Your task to perform on an android device: Search for "panasonic triple a" on amazon, select the first entry, and add it to the cart. Image 0: 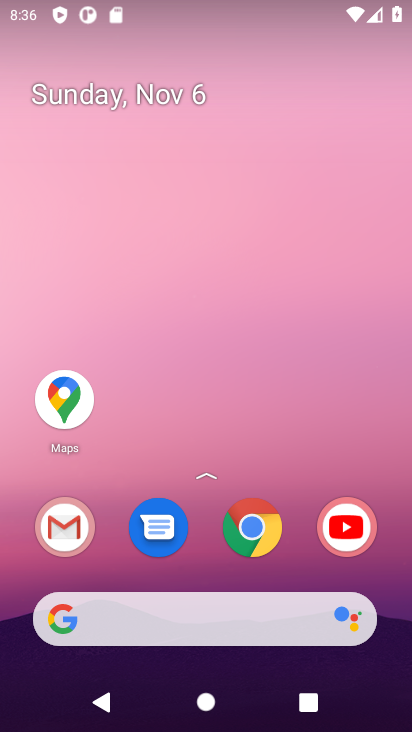
Step 0: click (249, 529)
Your task to perform on an android device: Search for "panasonic triple a" on amazon, select the first entry, and add it to the cart. Image 1: 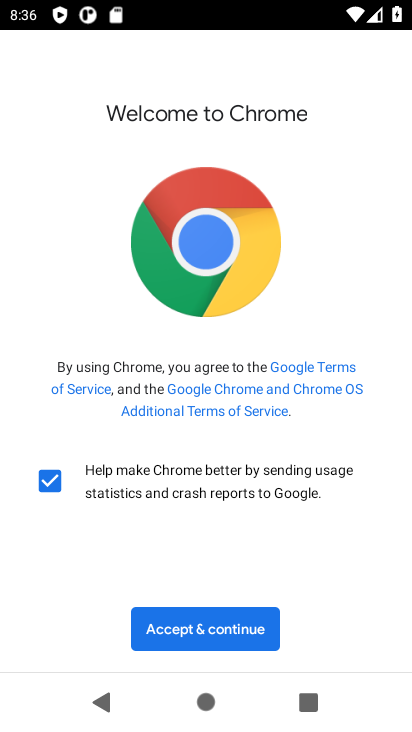
Step 1: click (176, 630)
Your task to perform on an android device: Search for "panasonic triple a" on amazon, select the first entry, and add it to the cart. Image 2: 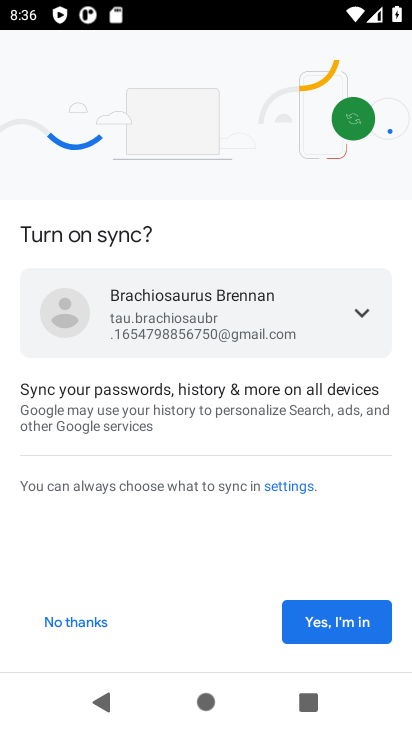
Step 2: click (355, 615)
Your task to perform on an android device: Search for "panasonic triple a" on amazon, select the first entry, and add it to the cart. Image 3: 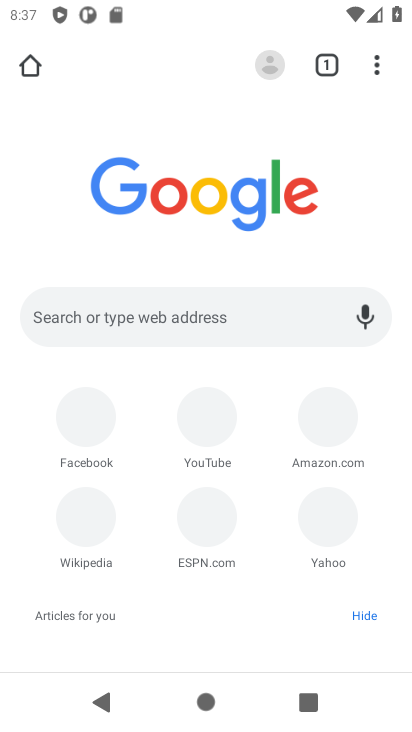
Step 3: click (140, 309)
Your task to perform on an android device: Search for "panasonic triple a" on amazon, select the first entry, and add it to the cart. Image 4: 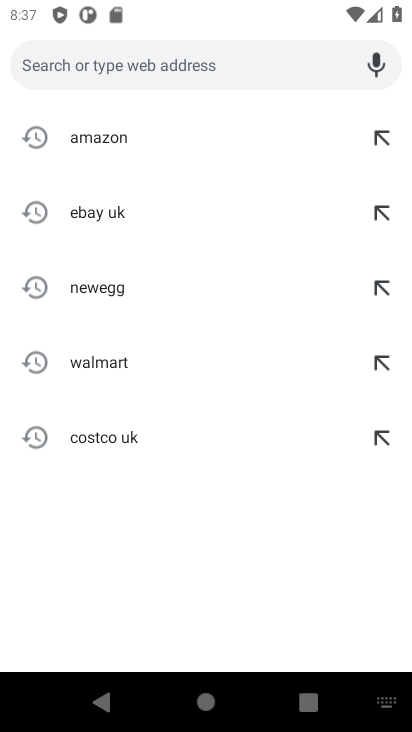
Step 4: click (109, 132)
Your task to perform on an android device: Search for "panasonic triple a" on amazon, select the first entry, and add it to the cart. Image 5: 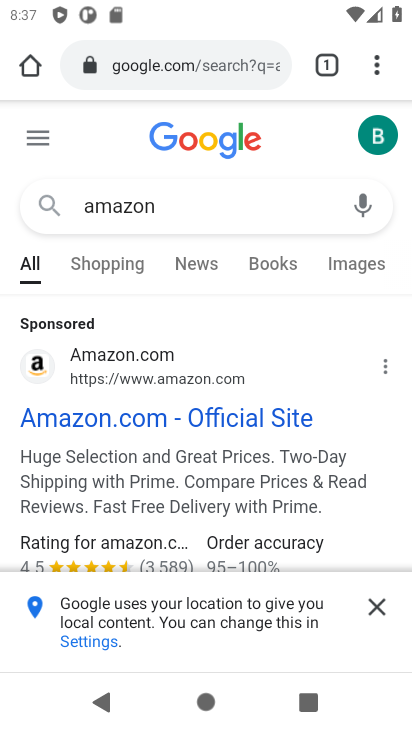
Step 5: click (377, 605)
Your task to perform on an android device: Search for "panasonic triple a" on amazon, select the first entry, and add it to the cart. Image 6: 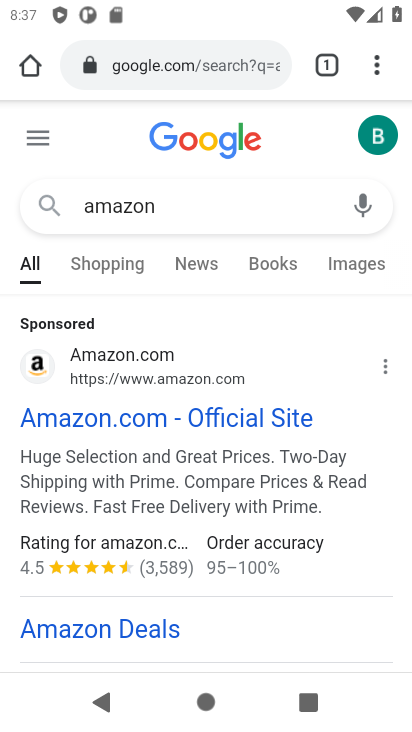
Step 6: click (125, 417)
Your task to perform on an android device: Search for "panasonic triple a" on amazon, select the first entry, and add it to the cart. Image 7: 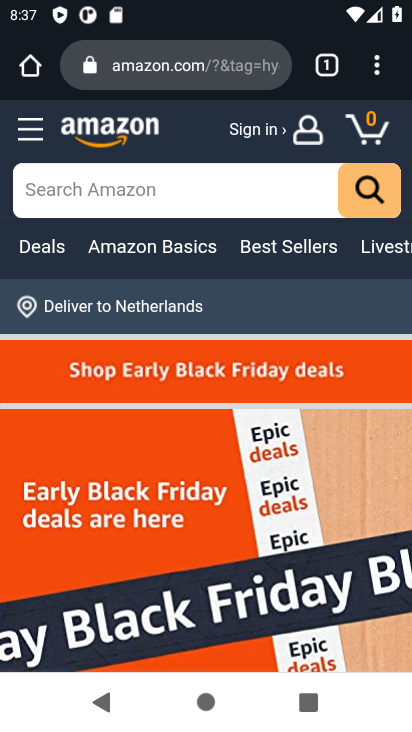
Step 7: click (152, 195)
Your task to perform on an android device: Search for "panasonic triple a" on amazon, select the first entry, and add it to the cart. Image 8: 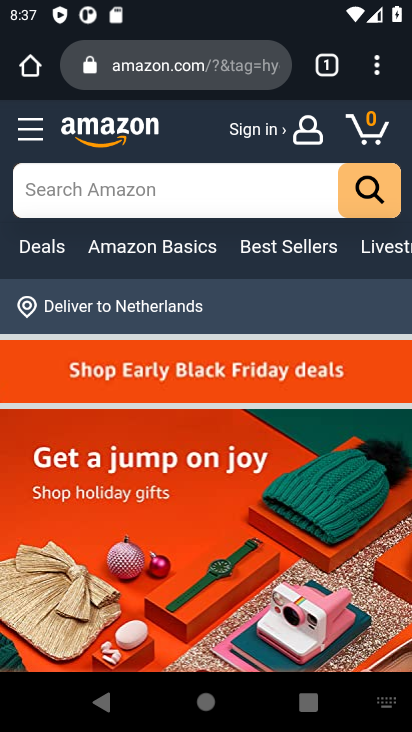
Step 8: click (173, 195)
Your task to perform on an android device: Search for "panasonic triple a" on amazon, select the first entry, and add it to the cart. Image 9: 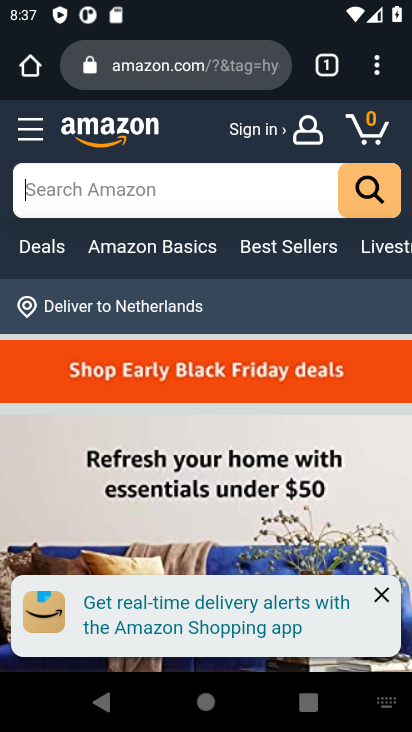
Step 9: type "panasonic triple "
Your task to perform on an android device: Search for "panasonic triple a" on amazon, select the first entry, and add it to the cart. Image 10: 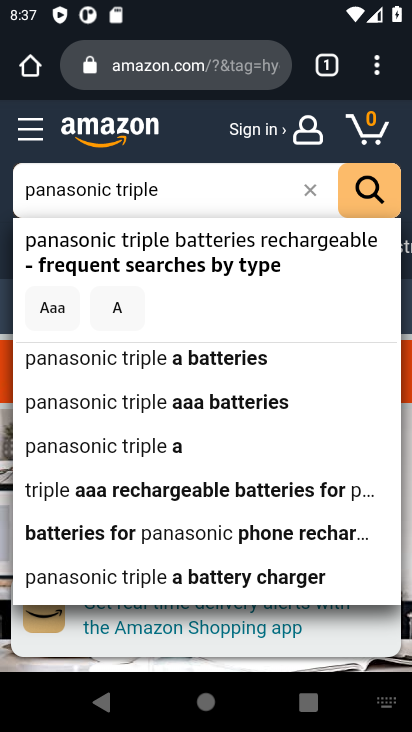
Step 10: click (227, 360)
Your task to perform on an android device: Search for "panasonic triple a" on amazon, select the first entry, and add it to the cart. Image 11: 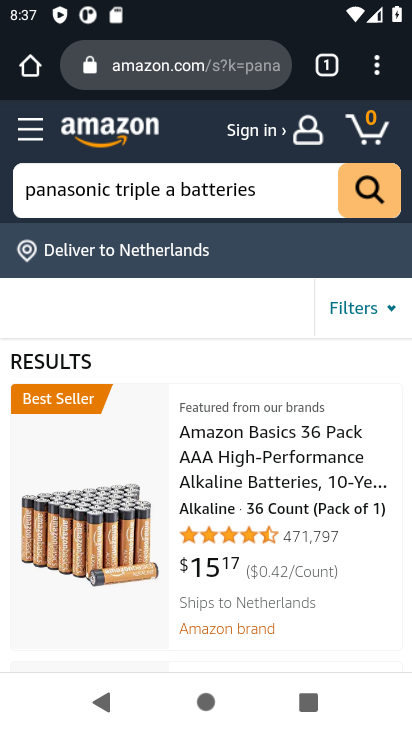
Step 11: click (272, 448)
Your task to perform on an android device: Search for "panasonic triple a" on amazon, select the first entry, and add it to the cart. Image 12: 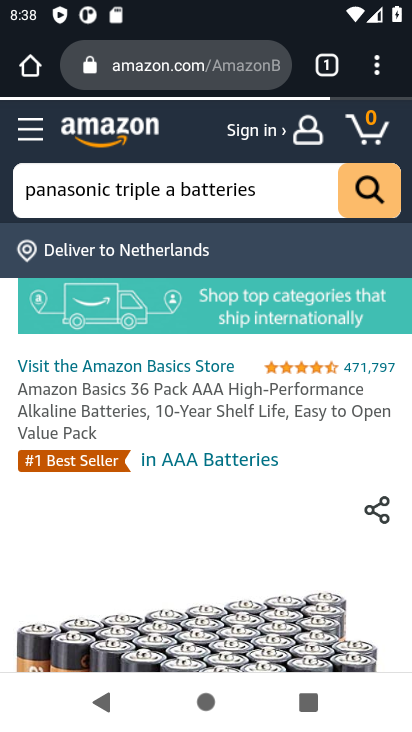
Step 12: drag from (213, 592) to (266, 219)
Your task to perform on an android device: Search for "panasonic triple a" on amazon, select the first entry, and add it to the cart. Image 13: 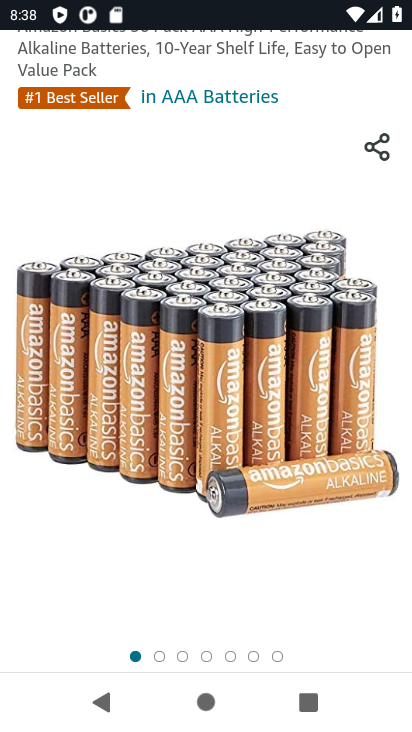
Step 13: drag from (197, 588) to (250, 195)
Your task to perform on an android device: Search for "panasonic triple a" on amazon, select the first entry, and add it to the cart. Image 14: 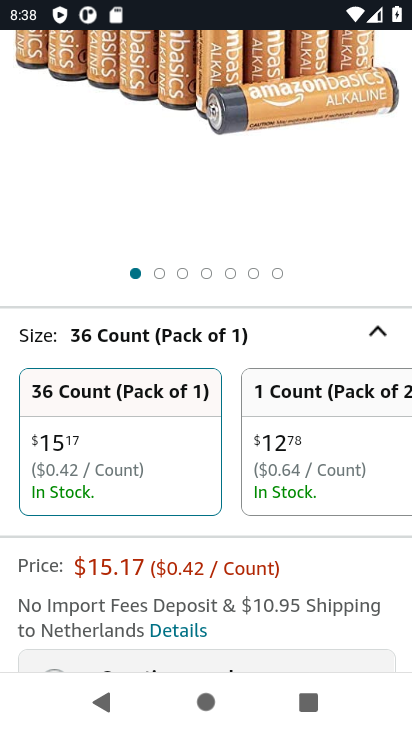
Step 14: drag from (177, 598) to (275, 81)
Your task to perform on an android device: Search for "panasonic triple a" on amazon, select the first entry, and add it to the cart. Image 15: 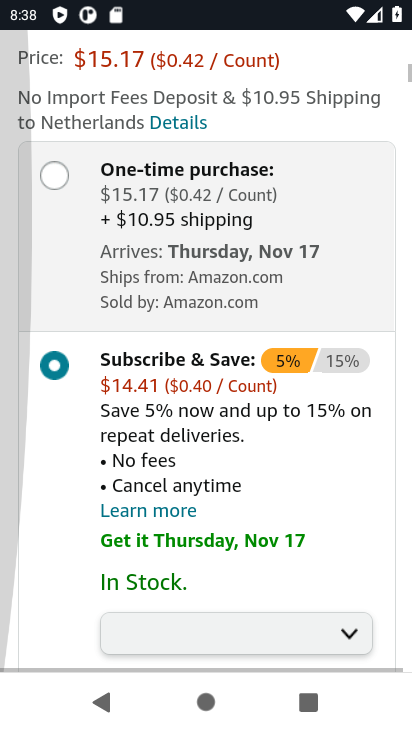
Step 15: drag from (196, 555) to (317, 23)
Your task to perform on an android device: Search for "panasonic triple a" on amazon, select the first entry, and add it to the cart. Image 16: 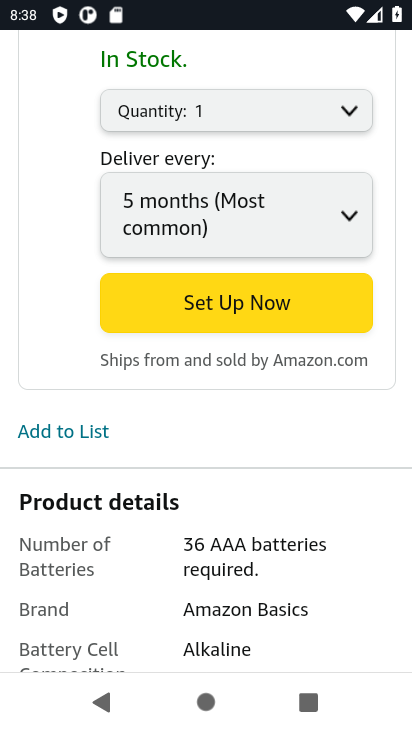
Step 16: drag from (227, 311) to (199, 727)
Your task to perform on an android device: Search for "panasonic triple a" on amazon, select the first entry, and add it to the cart. Image 17: 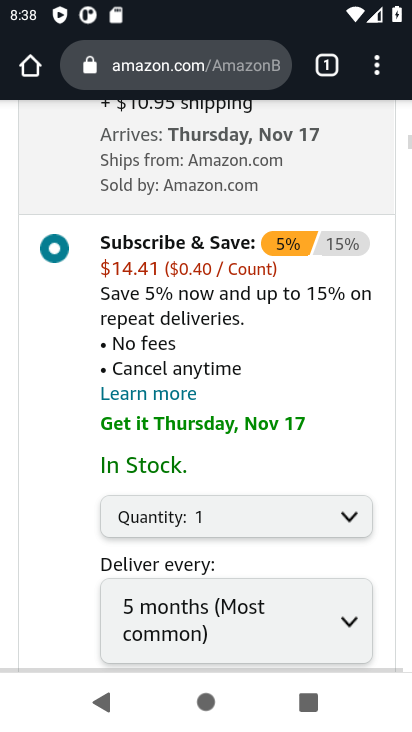
Step 17: drag from (189, 543) to (186, 638)
Your task to perform on an android device: Search for "panasonic triple a" on amazon, select the first entry, and add it to the cart. Image 18: 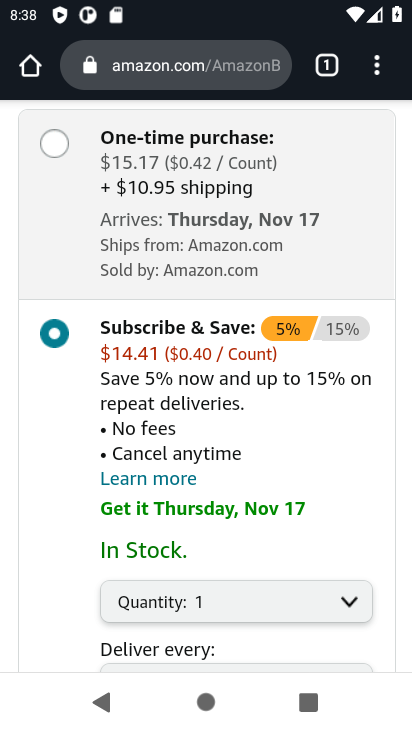
Step 18: click (57, 153)
Your task to perform on an android device: Search for "panasonic triple a" on amazon, select the first entry, and add it to the cart. Image 19: 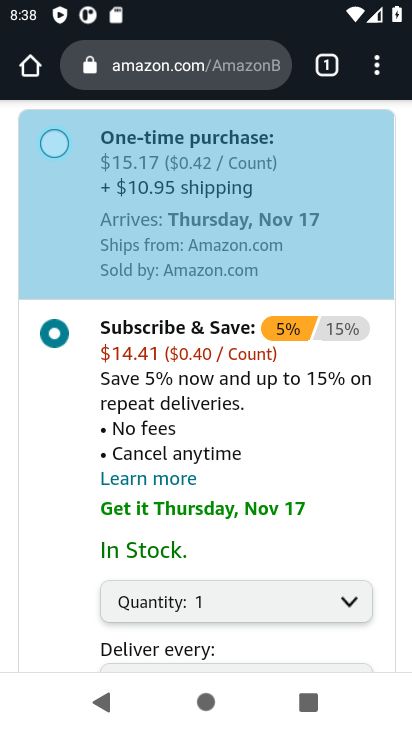
Step 19: drag from (255, 549) to (253, 254)
Your task to perform on an android device: Search for "panasonic triple a" on amazon, select the first entry, and add it to the cart. Image 20: 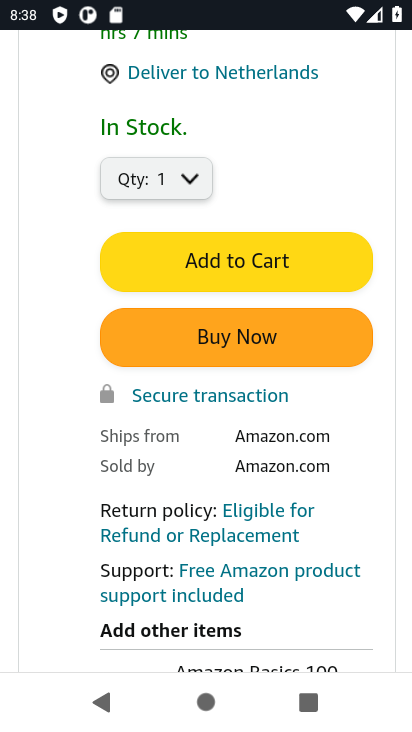
Step 20: click (239, 239)
Your task to perform on an android device: Search for "panasonic triple a" on amazon, select the first entry, and add it to the cart. Image 21: 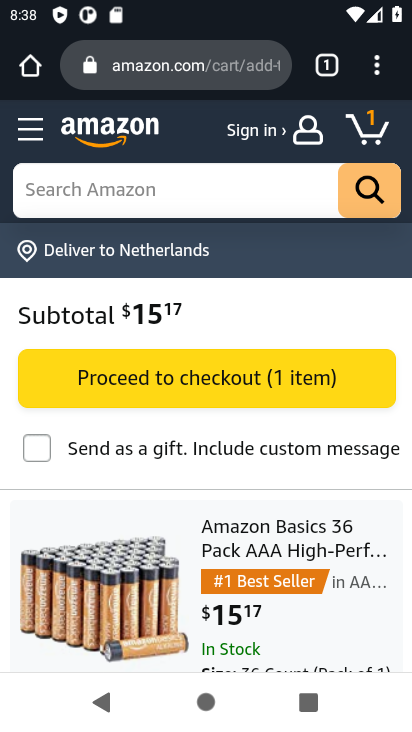
Step 21: task complete